Your task to perform on an android device: Open calendar and show me the fourth week of next month Image 0: 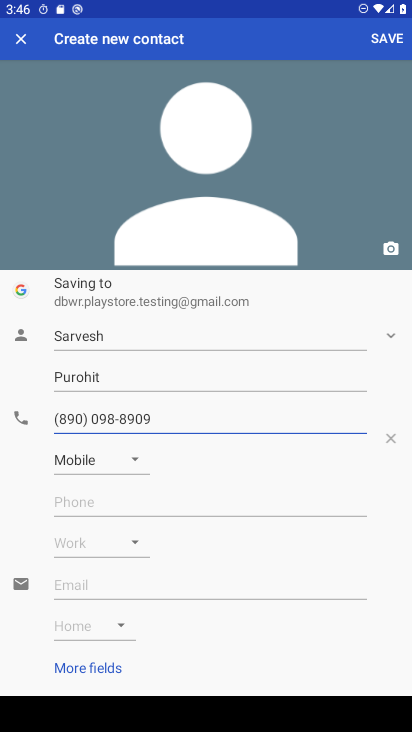
Step 0: press home button
Your task to perform on an android device: Open calendar and show me the fourth week of next month Image 1: 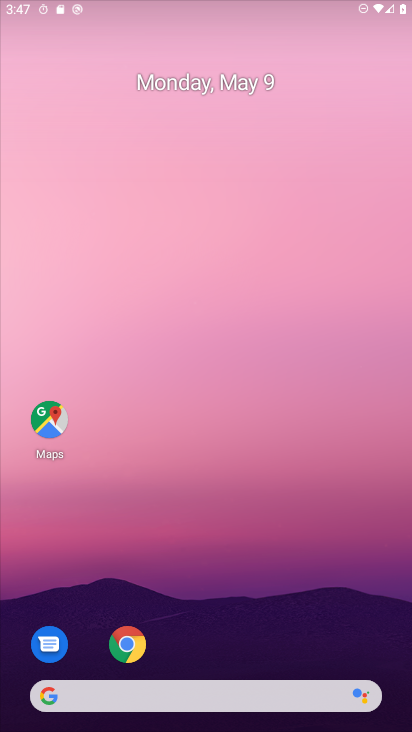
Step 1: drag from (262, 631) to (246, 77)
Your task to perform on an android device: Open calendar and show me the fourth week of next month Image 2: 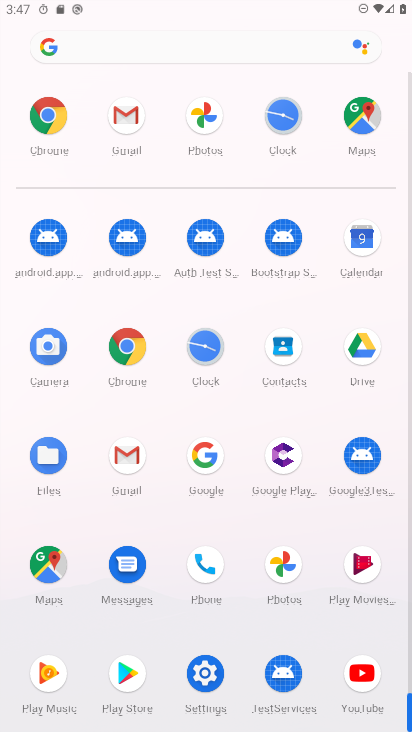
Step 2: click (371, 259)
Your task to perform on an android device: Open calendar and show me the fourth week of next month Image 3: 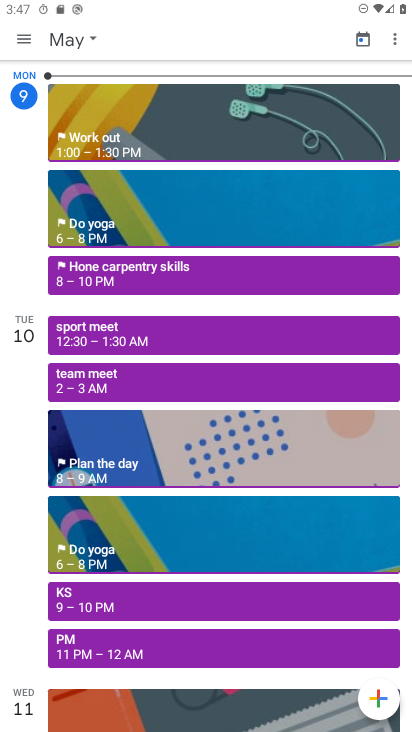
Step 3: click (33, 44)
Your task to perform on an android device: Open calendar and show me the fourth week of next month Image 4: 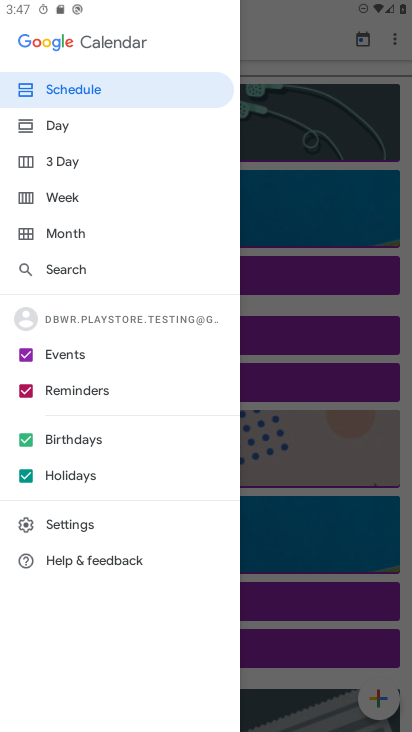
Step 4: click (57, 201)
Your task to perform on an android device: Open calendar and show me the fourth week of next month Image 5: 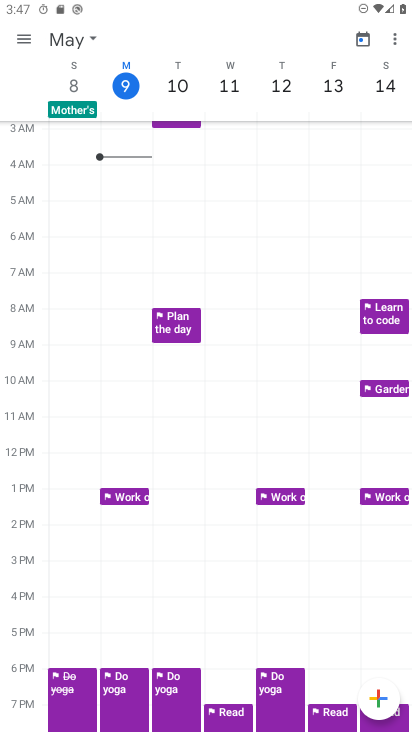
Step 5: click (74, 45)
Your task to perform on an android device: Open calendar and show me the fourth week of next month Image 6: 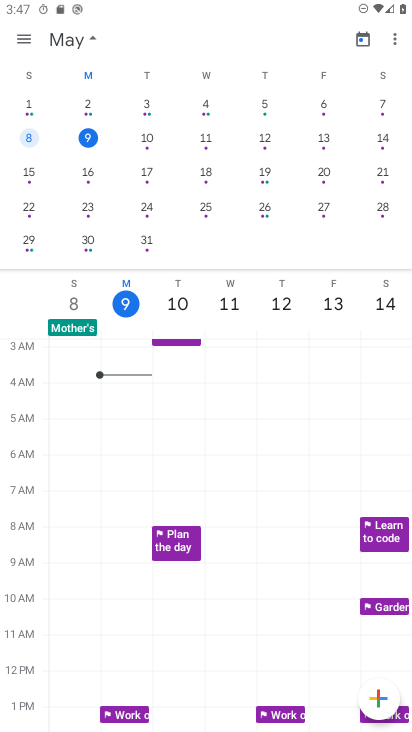
Step 6: drag from (371, 199) to (9, 211)
Your task to perform on an android device: Open calendar and show me the fourth week of next month Image 7: 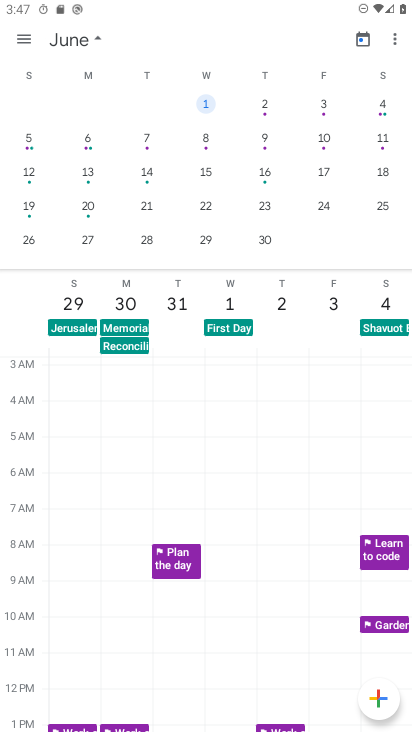
Step 7: click (30, 245)
Your task to perform on an android device: Open calendar and show me the fourth week of next month Image 8: 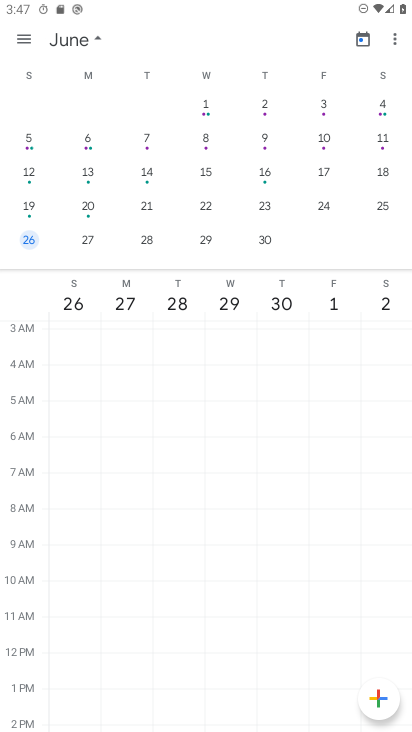
Step 8: task complete